Your task to perform on an android device: open a bookmark in the chrome app Image 0: 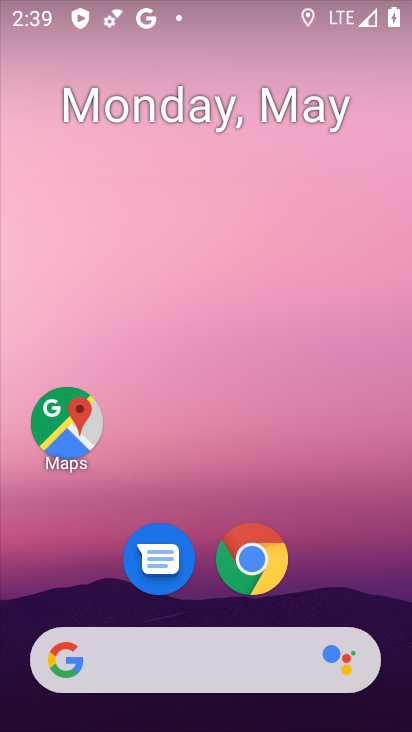
Step 0: click (253, 556)
Your task to perform on an android device: open a bookmark in the chrome app Image 1: 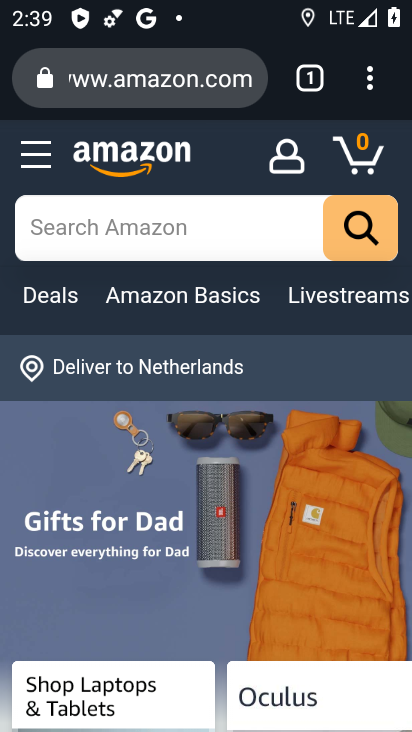
Step 1: click (371, 73)
Your task to perform on an android device: open a bookmark in the chrome app Image 2: 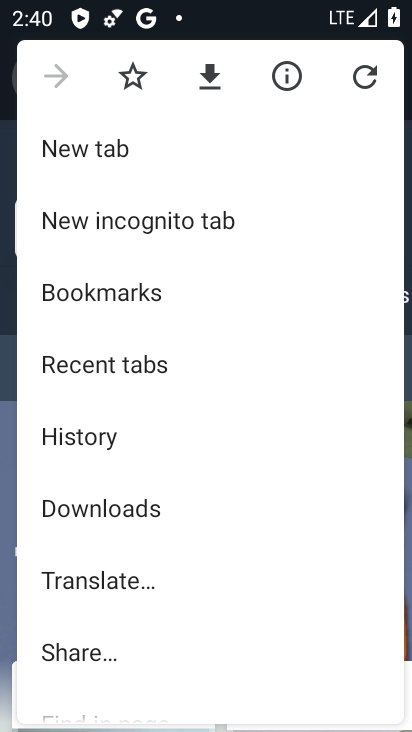
Step 2: click (86, 293)
Your task to perform on an android device: open a bookmark in the chrome app Image 3: 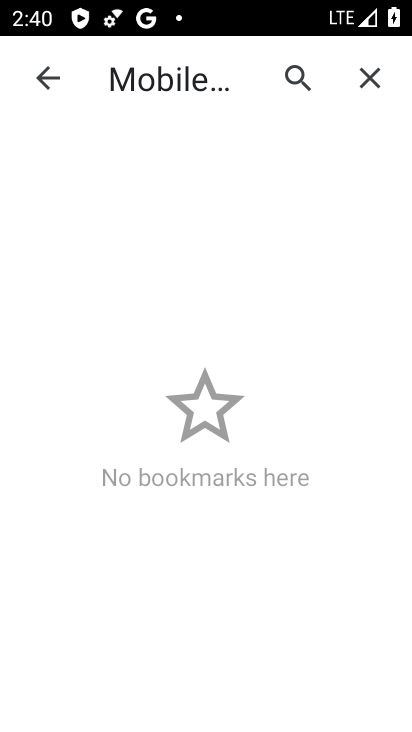
Step 3: task complete